Your task to perform on an android device: Open wifi settings Image 0: 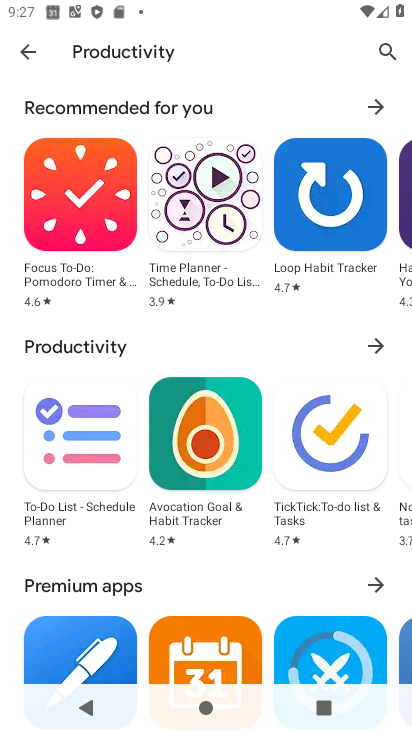
Step 0: press home button
Your task to perform on an android device: Open wifi settings Image 1: 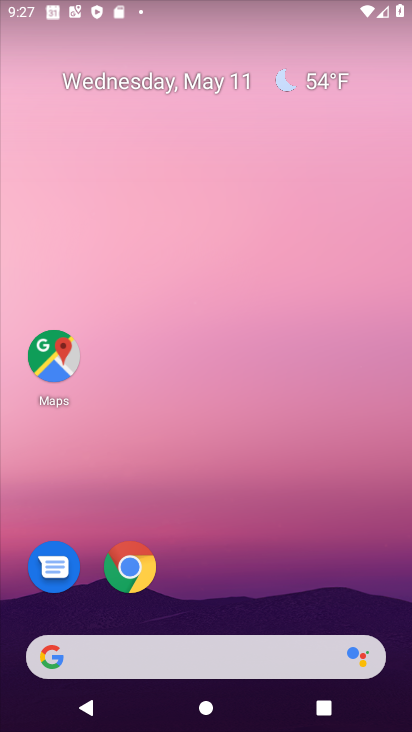
Step 1: drag from (208, 600) to (276, 35)
Your task to perform on an android device: Open wifi settings Image 2: 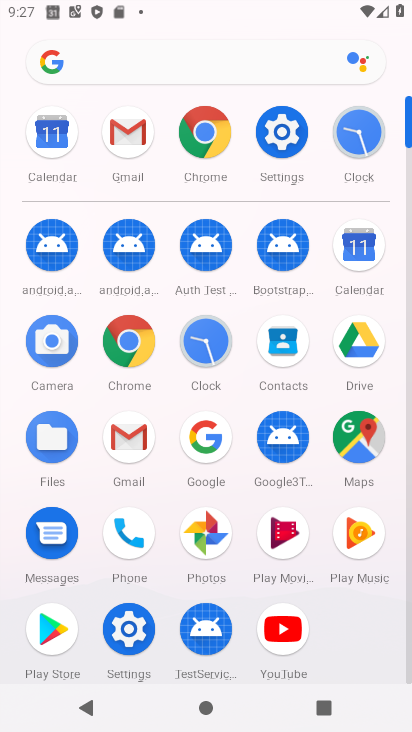
Step 2: click (298, 123)
Your task to perform on an android device: Open wifi settings Image 3: 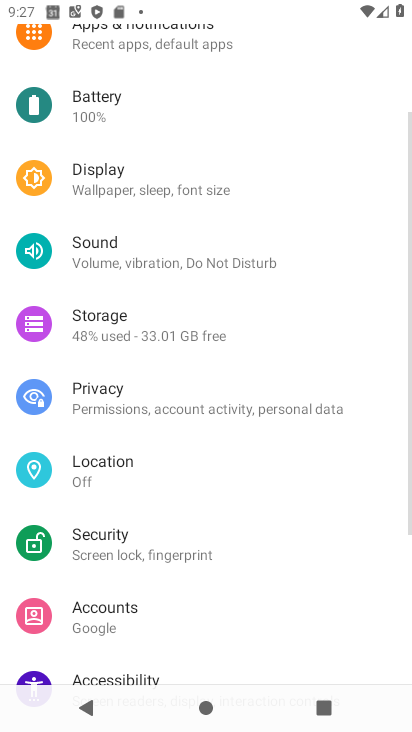
Step 3: drag from (223, 124) to (232, 554)
Your task to perform on an android device: Open wifi settings Image 4: 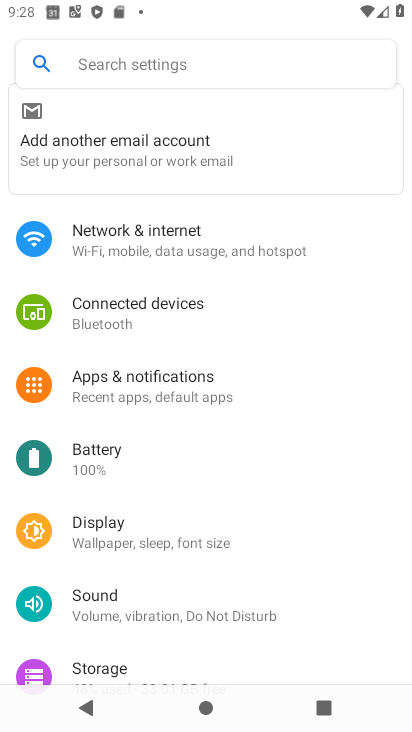
Step 4: click (163, 261)
Your task to perform on an android device: Open wifi settings Image 5: 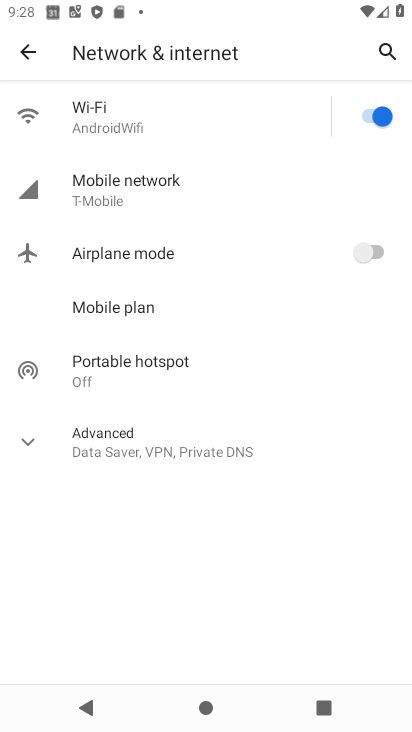
Step 5: click (105, 121)
Your task to perform on an android device: Open wifi settings Image 6: 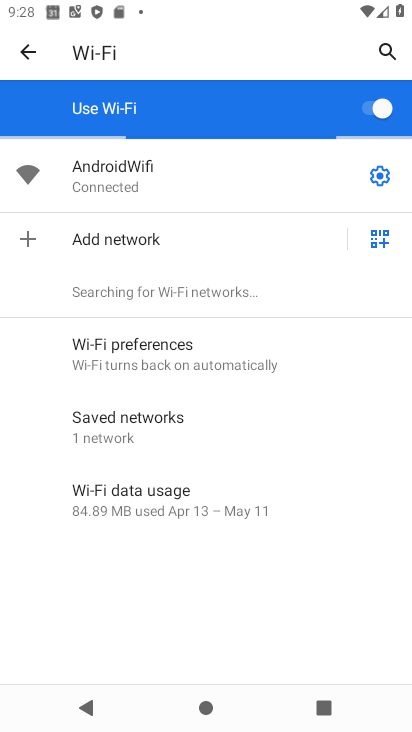
Step 6: task complete